Your task to perform on an android device: Search for the best rated desk chair on Article.com Image 0: 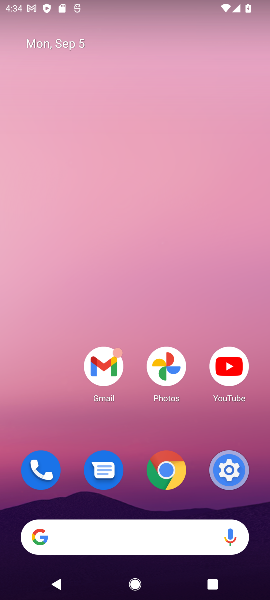
Step 0: click (151, 544)
Your task to perform on an android device: Search for the best rated desk chair on Article.com Image 1: 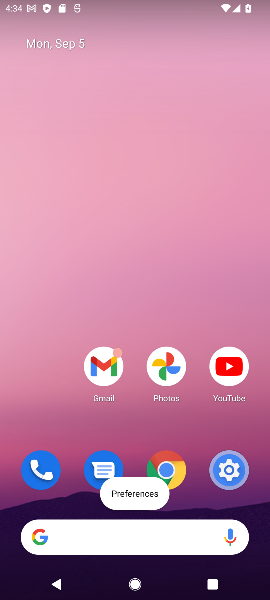
Step 1: click (152, 545)
Your task to perform on an android device: Search for the best rated desk chair on Article.com Image 2: 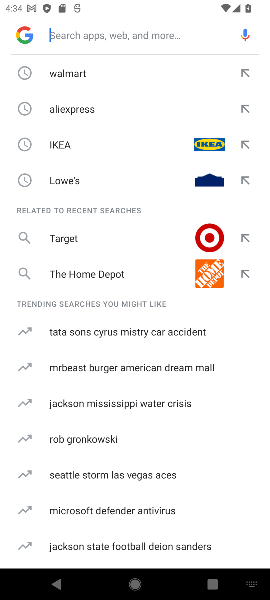
Step 2: type "article.com"
Your task to perform on an android device: Search for the best rated desk chair on Article.com Image 3: 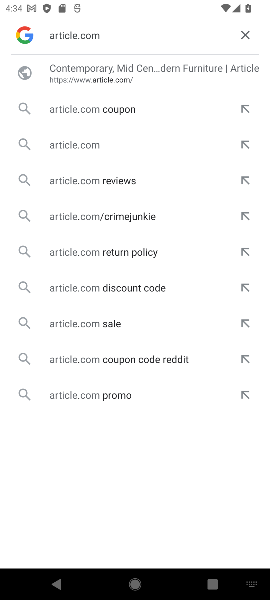
Step 3: press enter
Your task to perform on an android device: Search for the best rated desk chair on Article.com Image 4: 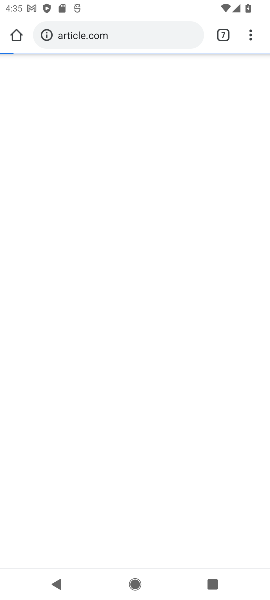
Step 4: press enter
Your task to perform on an android device: Search for the best rated desk chair on Article.com Image 5: 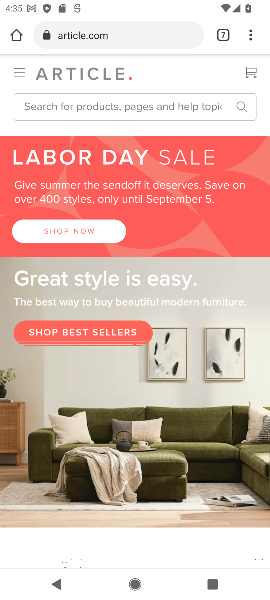
Step 5: click (101, 104)
Your task to perform on an android device: Search for the best rated desk chair on Article.com Image 6: 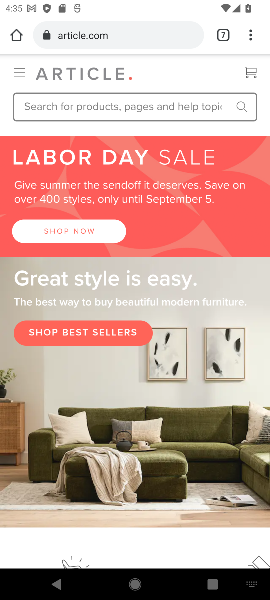
Step 6: type "desk chair"
Your task to perform on an android device: Search for the best rated desk chair on Article.com Image 7: 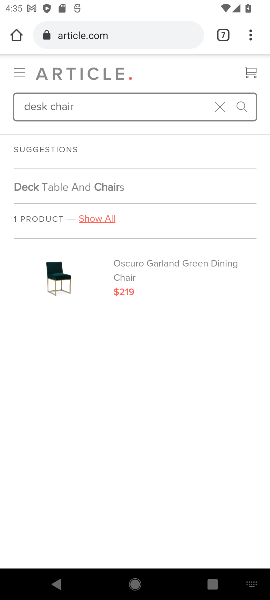
Step 7: drag from (196, 402) to (218, 328)
Your task to perform on an android device: Search for the best rated desk chair on Article.com Image 8: 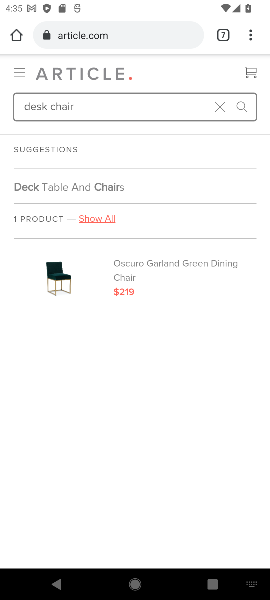
Step 8: drag from (203, 311) to (188, 447)
Your task to perform on an android device: Search for the best rated desk chair on Article.com Image 9: 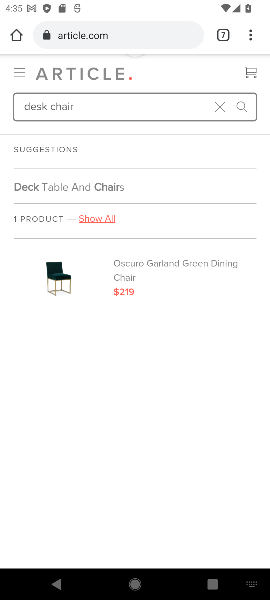
Step 9: drag from (188, 446) to (186, 358)
Your task to perform on an android device: Search for the best rated desk chair on Article.com Image 10: 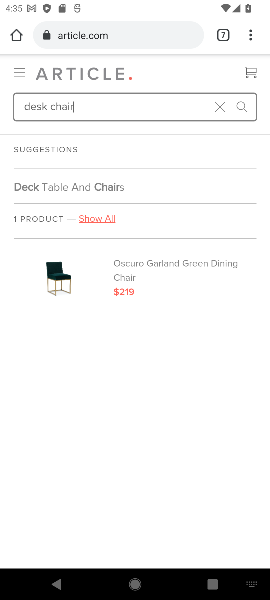
Step 10: click (157, 262)
Your task to perform on an android device: Search for the best rated desk chair on Article.com Image 11: 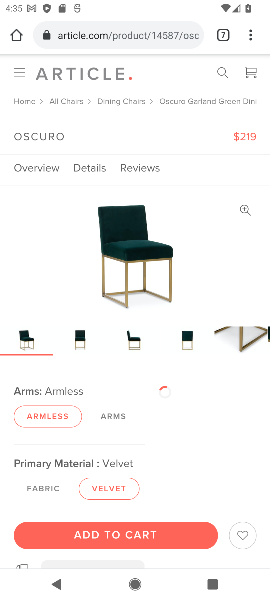
Step 11: task complete